Your task to perform on an android device: Empty the shopping cart on costco. Add lg ultragear to the cart on costco, then select checkout. Image 0: 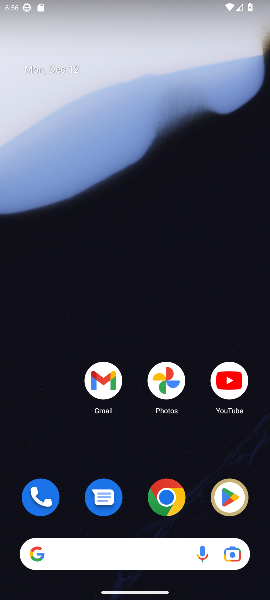
Step 0: press home button
Your task to perform on an android device: Empty the shopping cart on costco. Add lg ultragear to the cart on costco, then select checkout. Image 1: 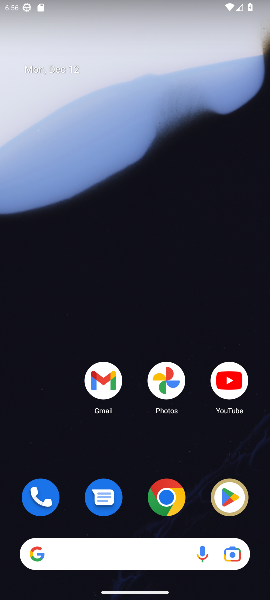
Step 1: drag from (56, 441) to (31, 78)
Your task to perform on an android device: Empty the shopping cart on costco. Add lg ultragear to the cart on costco, then select checkout. Image 2: 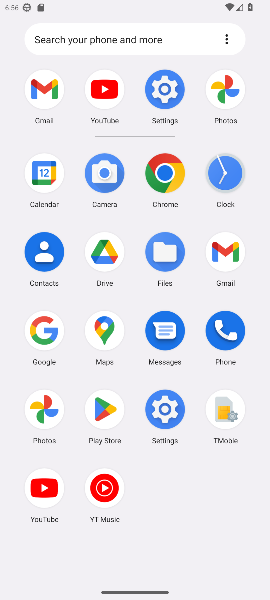
Step 2: click (34, 328)
Your task to perform on an android device: Empty the shopping cart on costco. Add lg ultragear to the cart on costco, then select checkout. Image 3: 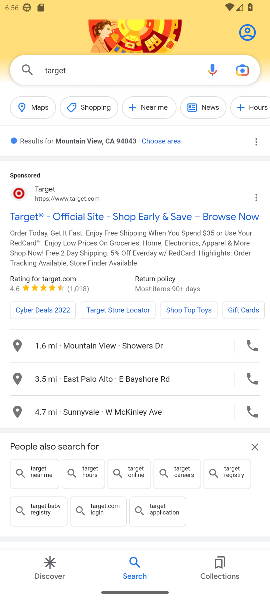
Step 3: click (117, 72)
Your task to perform on an android device: Empty the shopping cart on costco. Add lg ultragear to the cart on costco, then select checkout. Image 4: 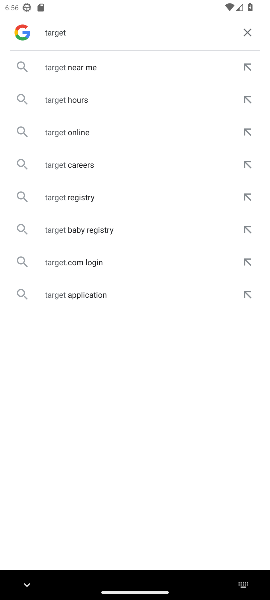
Step 4: click (250, 34)
Your task to perform on an android device: Empty the shopping cart on costco. Add lg ultragear to the cart on costco, then select checkout. Image 5: 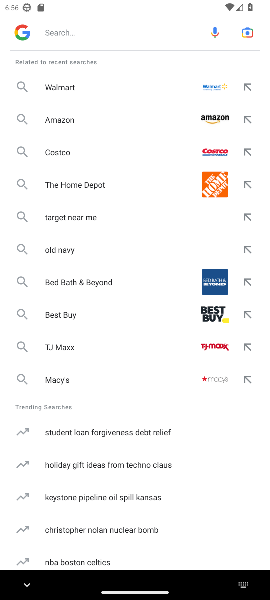
Step 5: type "costco"
Your task to perform on an android device: Empty the shopping cart on costco. Add lg ultragear to the cart on costco, then select checkout. Image 6: 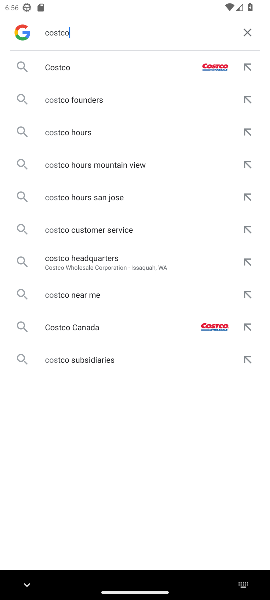
Step 6: press enter
Your task to perform on an android device: Empty the shopping cart on costco. Add lg ultragear to the cart on costco, then select checkout. Image 7: 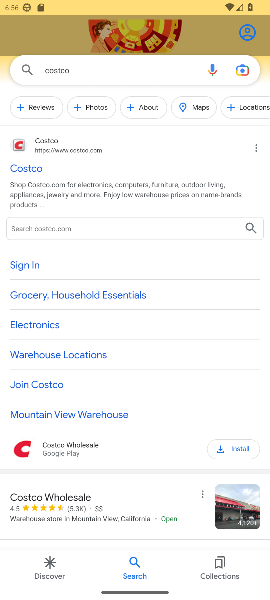
Step 7: click (30, 169)
Your task to perform on an android device: Empty the shopping cart on costco. Add lg ultragear to the cart on costco, then select checkout. Image 8: 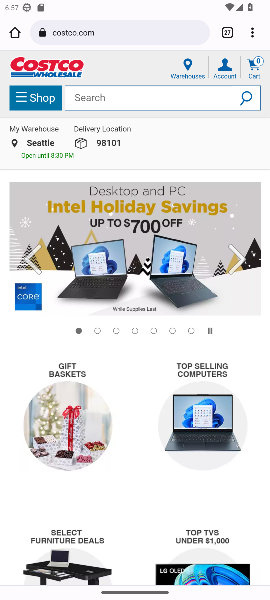
Step 8: click (256, 67)
Your task to perform on an android device: Empty the shopping cart on costco. Add lg ultragear to the cart on costco, then select checkout. Image 9: 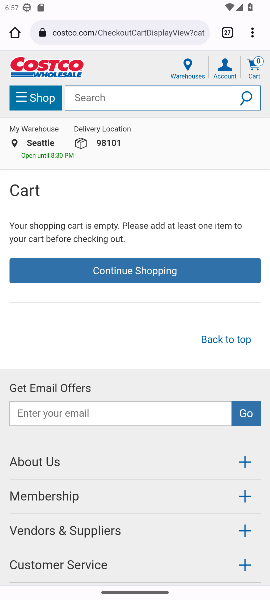
Step 9: click (125, 88)
Your task to perform on an android device: Empty the shopping cart on costco. Add lg ultragear to the cart on costco, then select checkout. Image 10: 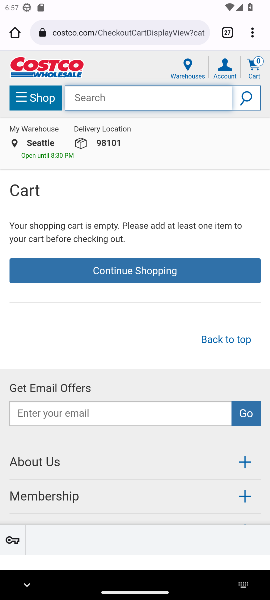
Step 10: type "lg ultragear"
Your task to perform on an android device: Empty the shopping cart on costco. Add lg ultragear to the cart on costco, then select checkout. Image 11: 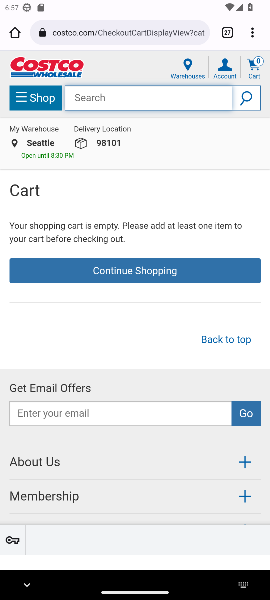
Step 11: press enter
Your task to perform on an android device: Empty the shopping cart on costco. Add lg ultragear to the cart on costco, then select checkout. Image 12: 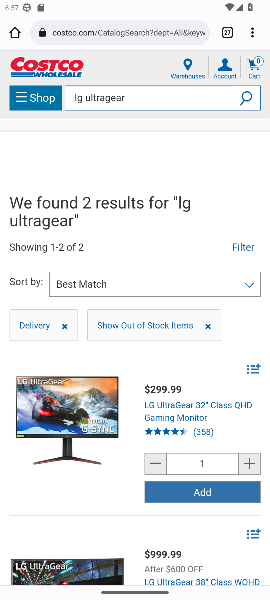
Step 12: drag from (124, 497) to (119, 301)
Your task to perform on an android device: Empty the shopping cart on costco. Add lg ultragear to the cart on costco, then select checkout. Image 13: 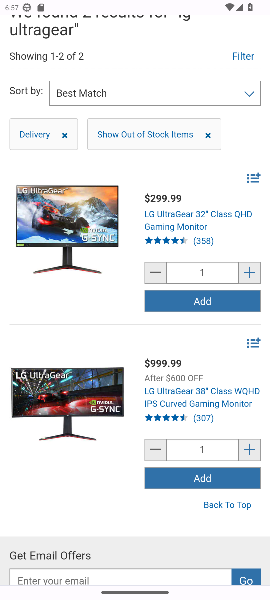
Step 13: click (200, 300)
Your task to perform on an android device: Empty the shopping cart on costco. Add lg ultragear to the cart on costco, then select checkout. Image 14: 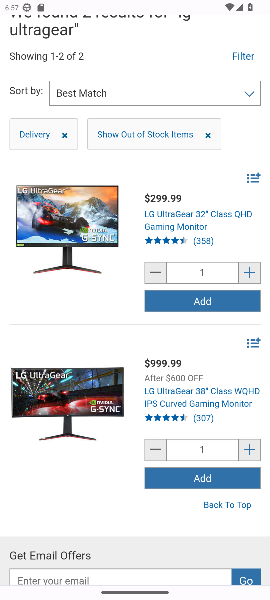
Step 14: drag from (98, 158) to (122, 379)
Your task to perform on an android device: Empty the shopping cart on costco. Add lg ultragear to the cart on costco, then select checkout. Image 15: 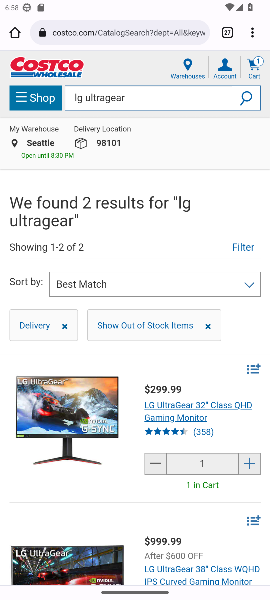
Step 15: click (254, 68)
Your task to perform on an android device: Empty the shopping cart on costco. Add lg ultragear to the cart on costco, then select checkout. Image 16: 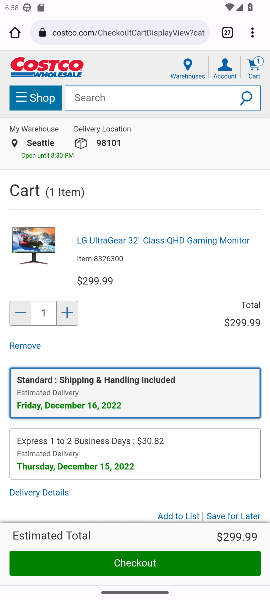
Step 16: click (138, 561)
Your task to perform on an android device: Empty the shopping cart on costco. Add lg ultragear to the cart on costco, then select checkout. Image 17: 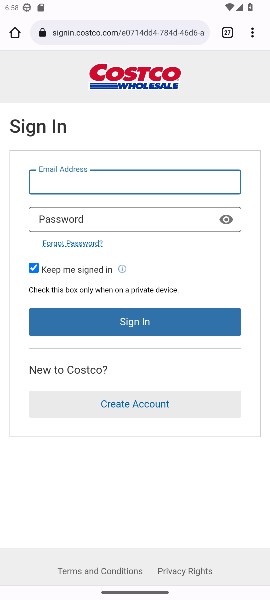
Step 17: task complete